Your task to perform on an android device: check the backup settings in the google photos Image 0: 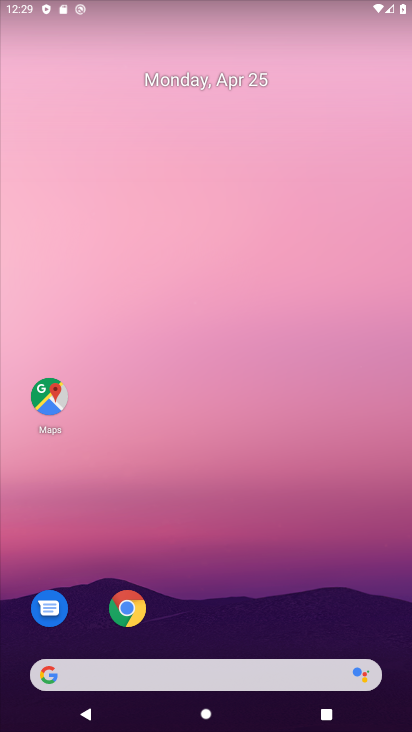
Step 0: drag from (227, 612) to (180, 125)
Your task to perform on an android device: check the backup settings in the google photos Image 1: 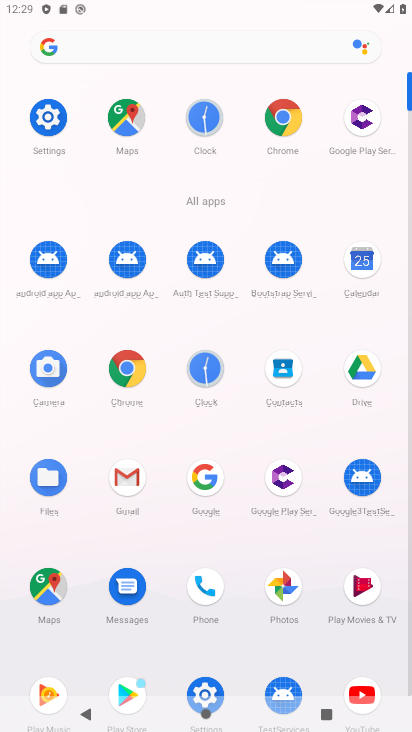
Step 1: click (289, 595)
Your task to perform on an android device: check the backup settings in the google photos Image 2: 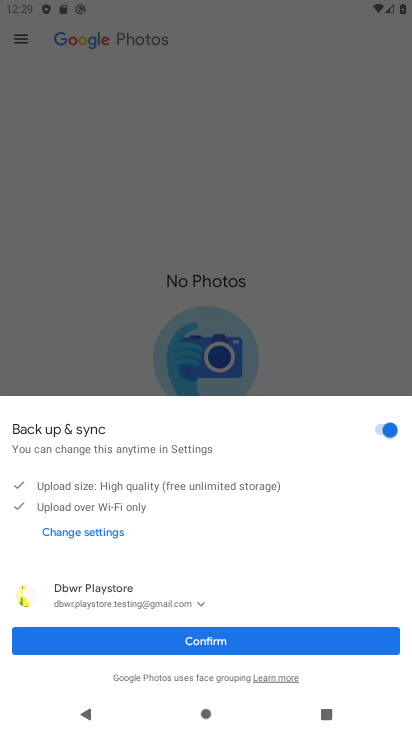
Step 2: click (377, 638)
Your task to perform on an android device: check the backup settings in the google photos Image 3: 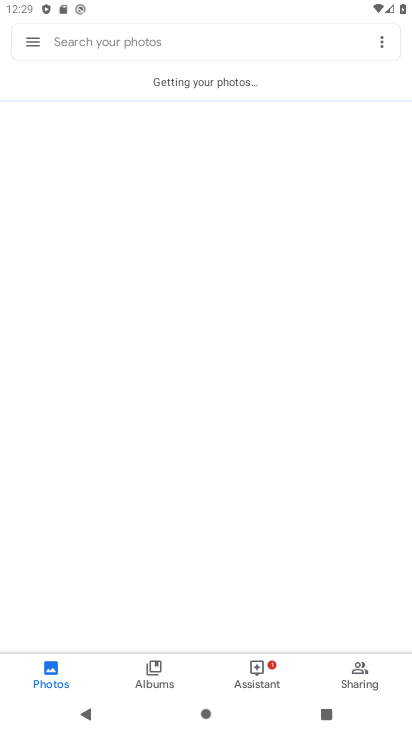
Step 3: click (32, 32)
Your task to perform on an android device: check the backup settings in the google photos Image 4: 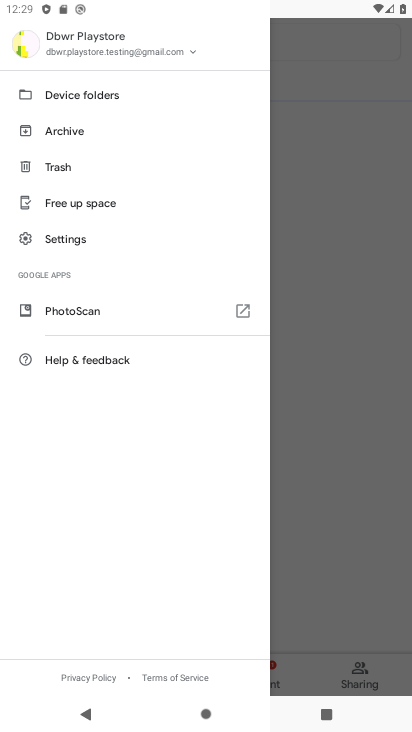
Step 4: click (127, 238)
Your task to perform on an android device: check the backup settings in the google photos Image 5: 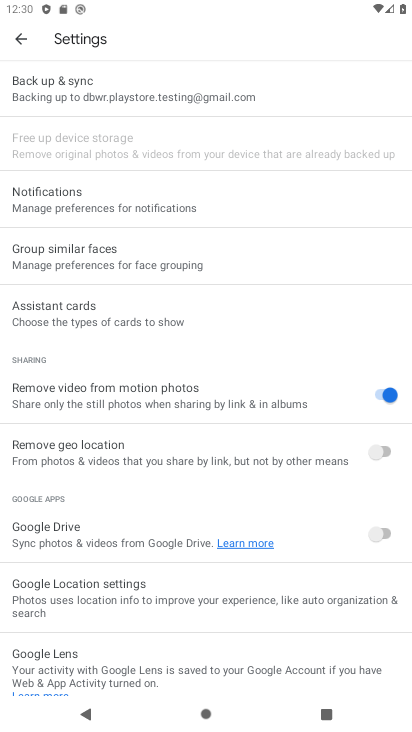
Step 5: click (166, 89)
Your task to perform on an android device: check the backup settings in the google photos Image 6: 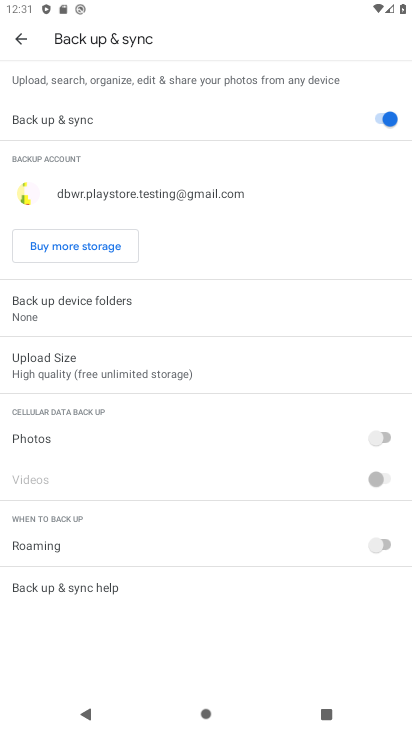
Step 6: task complete